Your task to perform on an android device: install app "VLC for Android" Image 0: 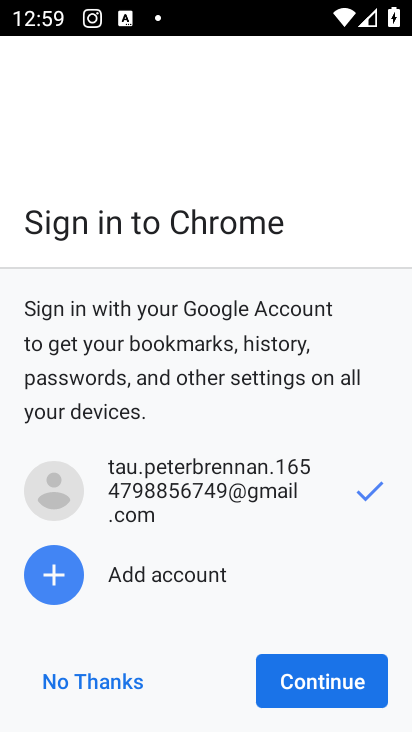
Step 0: press back button
Your task to perform on an android device: install app "VLC for Android" Image 1: 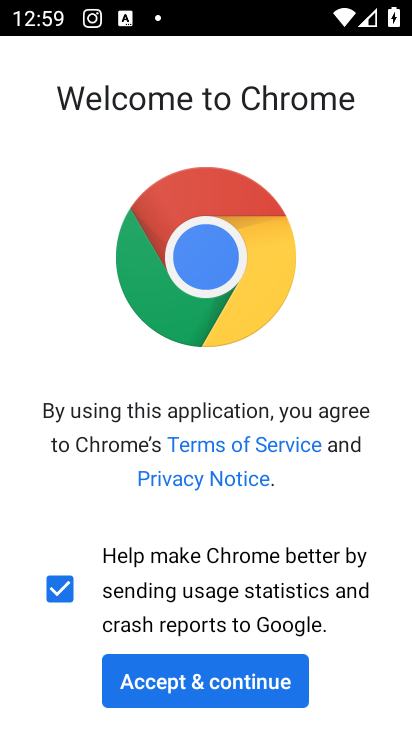
Step 1: press back button
Your task to perform on an android device: install app "VLC for Android" Image 2: 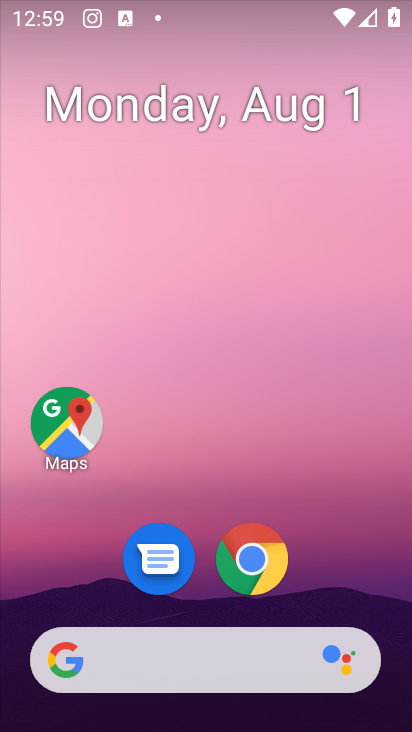
Step 2: press home button
Your task to perform on an android device: install app "VLC for Android" Image 3: 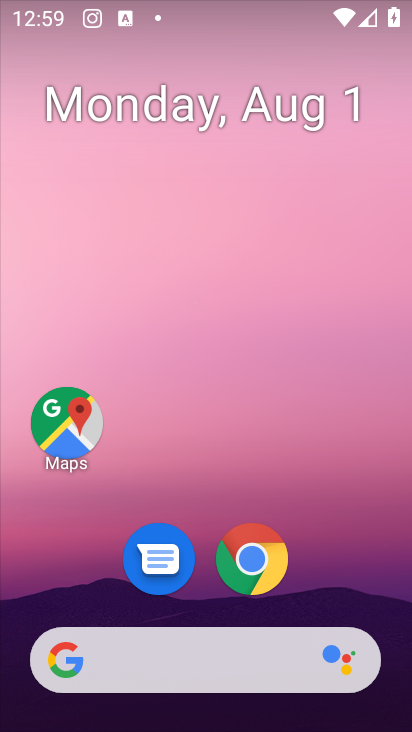
Step 3: drag from (67, 573) to (232, 7)
Your task to perform on an android device: install app "VLC for Android" Image 4: 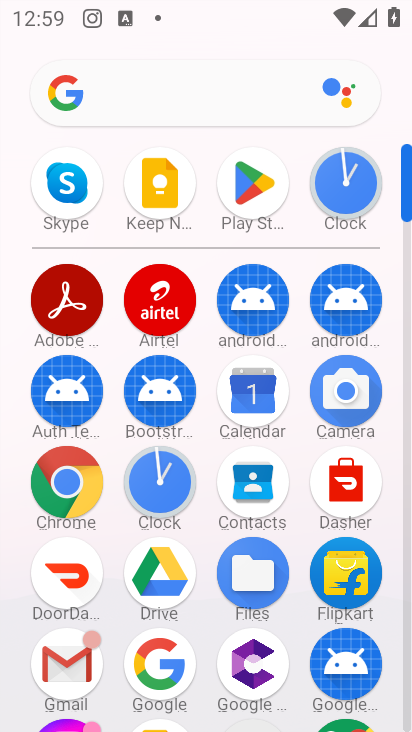
Step 4: click (237, 187)
Your task to perform on an android device: install app "VLC for Android" Image 5: 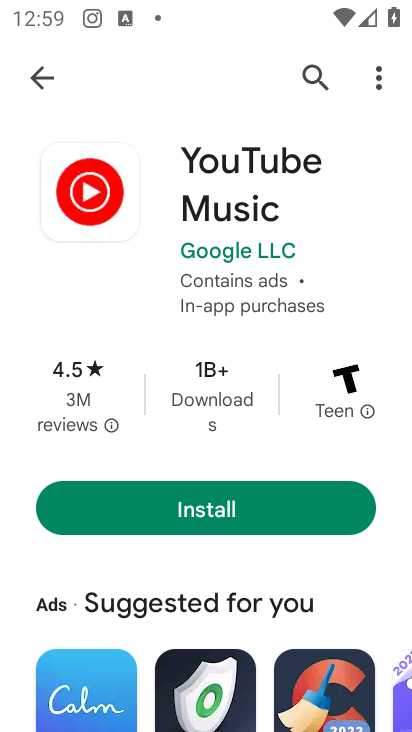
Step 5: click (305, 74)
Your task to perform on an android device: install app "VLC for Android" Image 6: 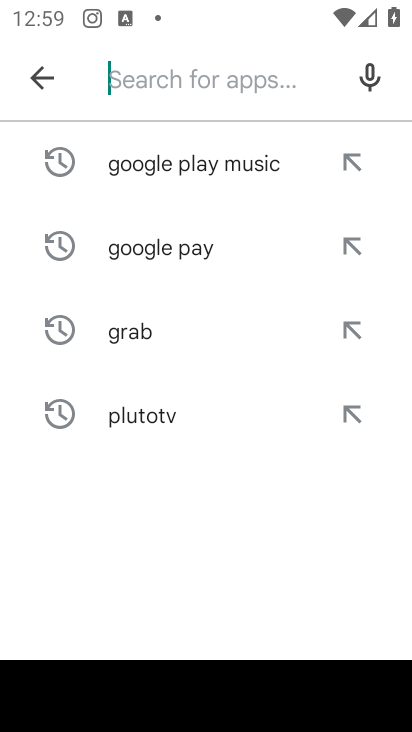
Step 6: click (155, 83)
Your task to perform on an android device: install app "VLC for Android" Image 7: 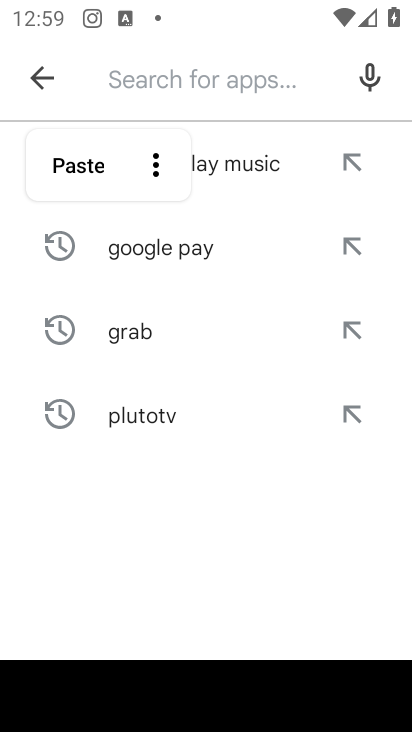
Step 7: type "vlc for android"
Your task to perform on an android device: install app "VLC for Android" Image 8: 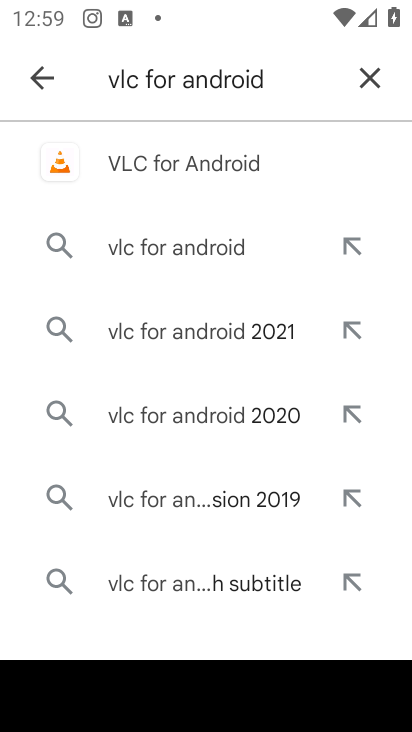
Step 8: click (148, 155)
Your task to perform on an android device: install app "VLC for Android" Image 9: 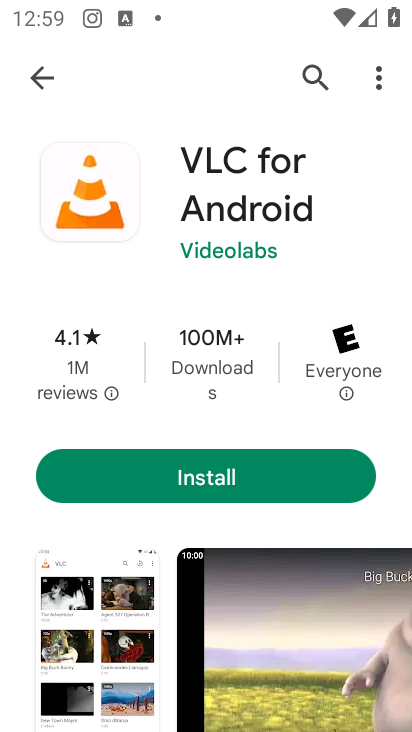
Step 9: click (171, 475)
Your task to perform on an android device: install app "VLC for Android" Image 10: 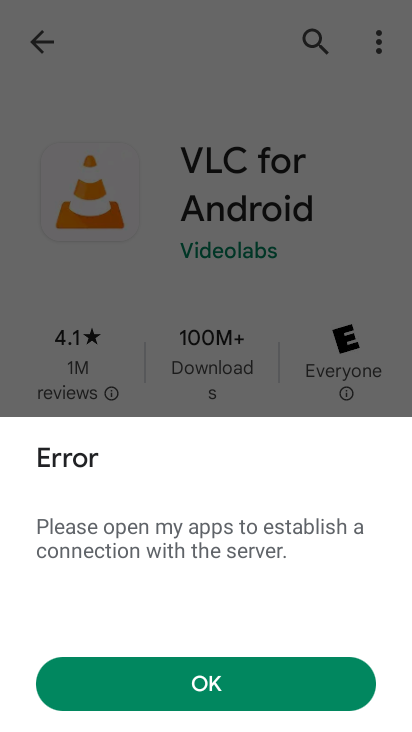
Step 10: click (226, 678)
Your task to perform on an android device: install app "VLC for Android" Image 11: 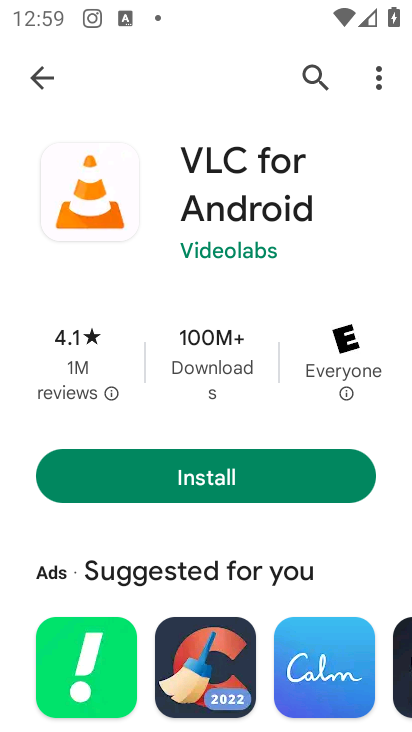
Step 11: task complete